Your task to perform on an android device: turn notification dots on Image 0: 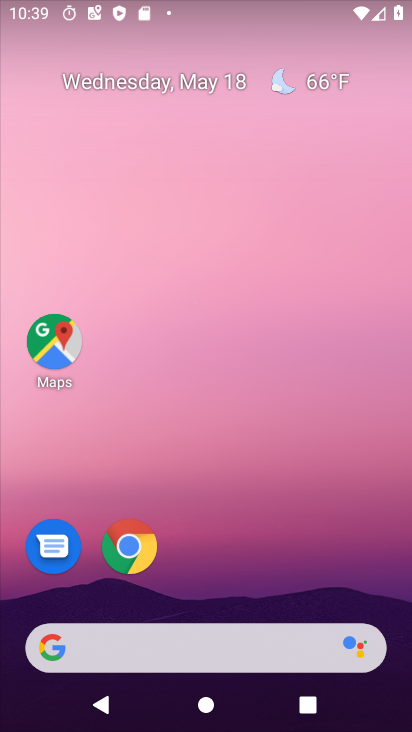
Step 0: drag from (221, 588) to (216, 140)
Your task to perform on an android device: turn notification dots on Image 1: 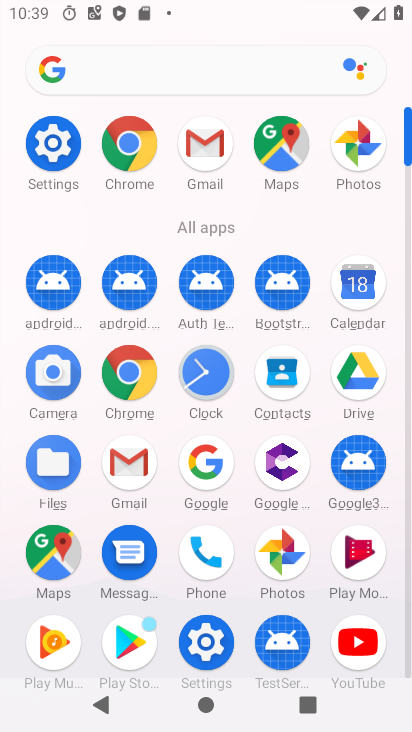
Step 1: click (47, 161)
Your task to perform on an android device: turn notification dots on Image 2: 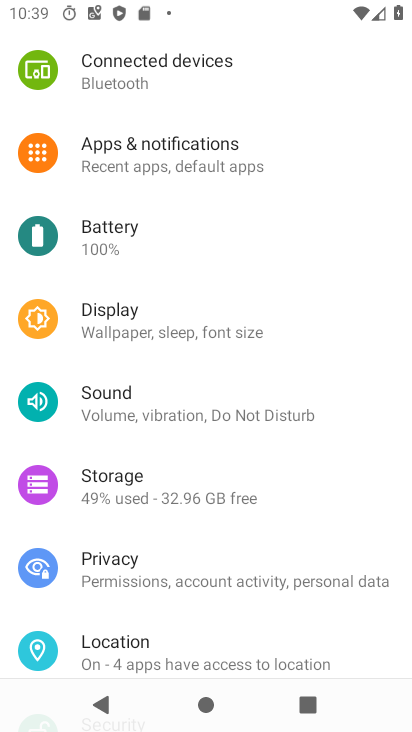
Step 2: click (136, 137)
Your task to perform on an android device: turn notification dots on Image 3: 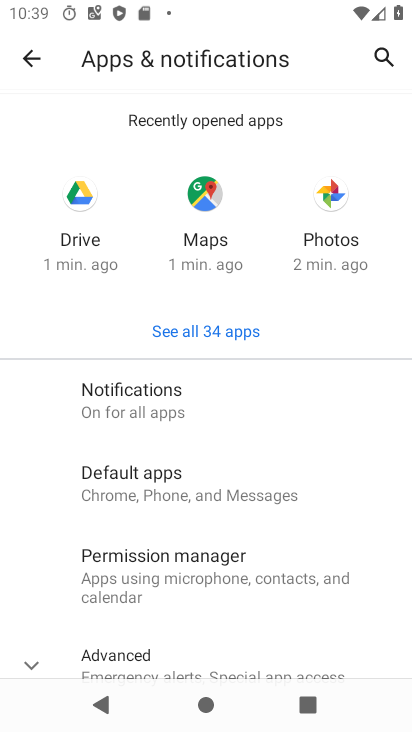
Step 3: click (136, 137)
Your task to perform on an android device: turn notification dots on Image 4: 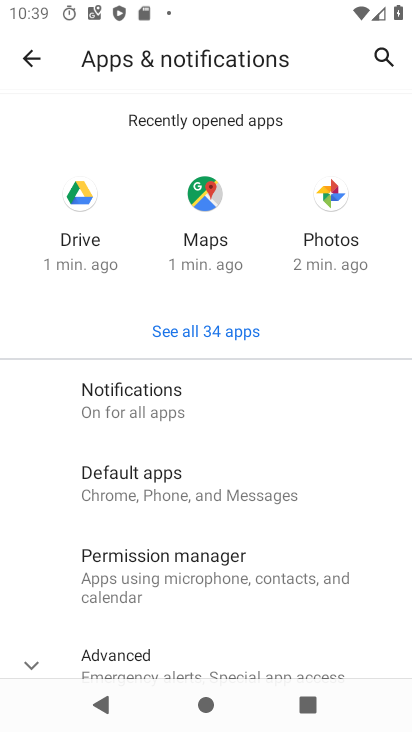
Step 4: click (133, 403)
Your task to perform on an android device: turn notification dots on Image 5: 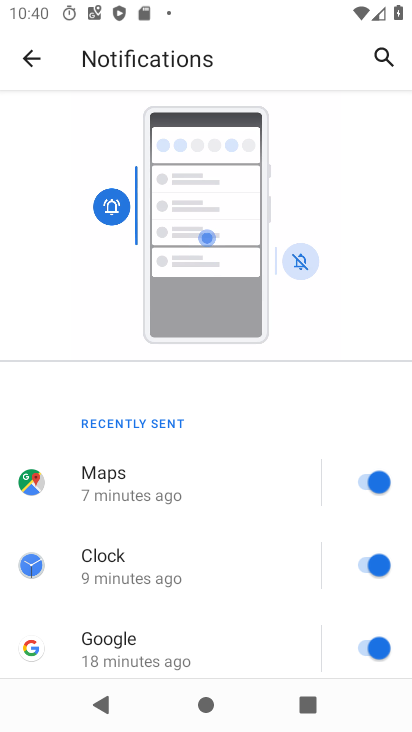
Step 5: drag from (211, 574) to (241, 146)
Your task to perform on an android device: turn notification dots on Image 6: 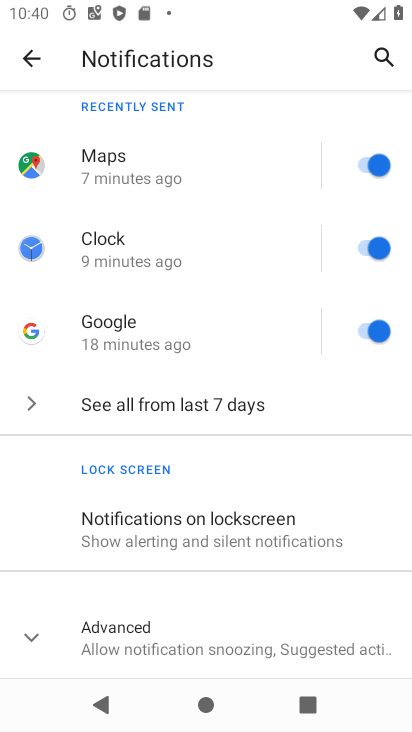
Step 6: click (160, 652)
Your task to perform on an android device: turn notification dots on Image 7: 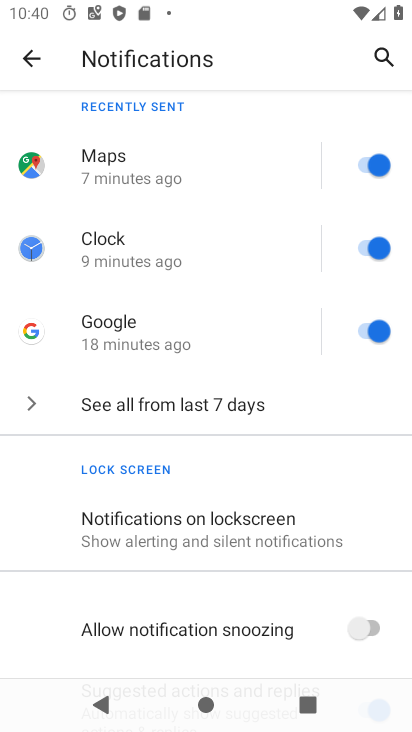
Step 7: task complete